Your task to perform on an android device: change the clock display to show seconds Image 0: 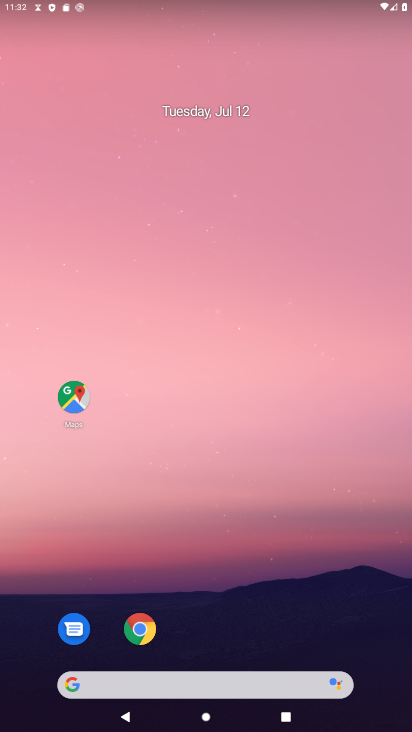
Step 0: drag from (318, 561) to (369, 148)
Your task to perform on an android device: change the clock display to show seconds Image 1: 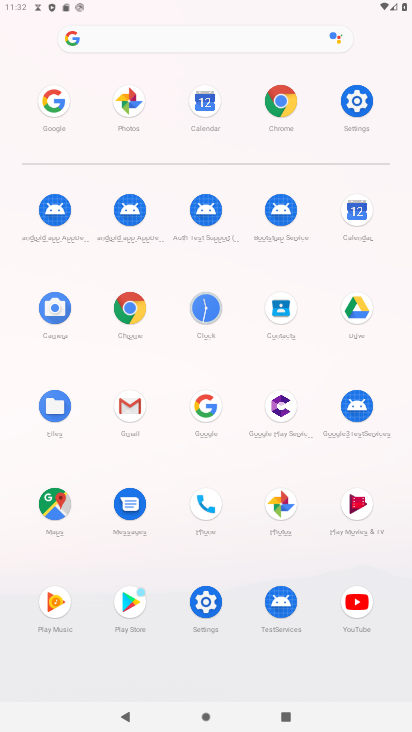
Step 1: click (201, 326)
Your task to perform on an android device: change the clock display to show seconds Image 2: 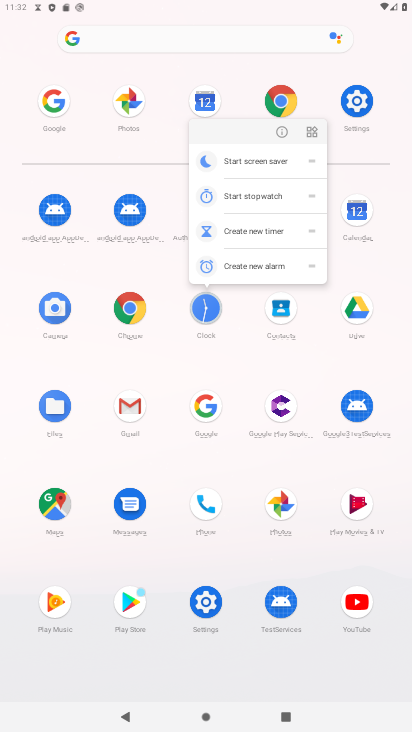
Step 2: click (209, 307)
Your task to perform on an android device: change the clock display to show seconds Image 3: 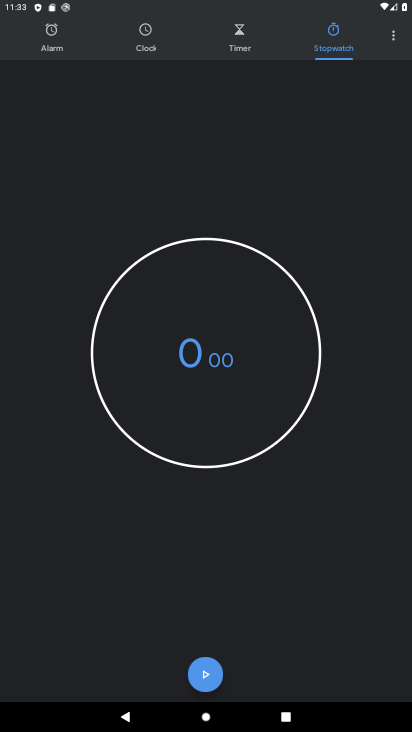
Step 3: click (394, 40)
Your task to perform on an android device: change the clock display to show seconds Image 4: 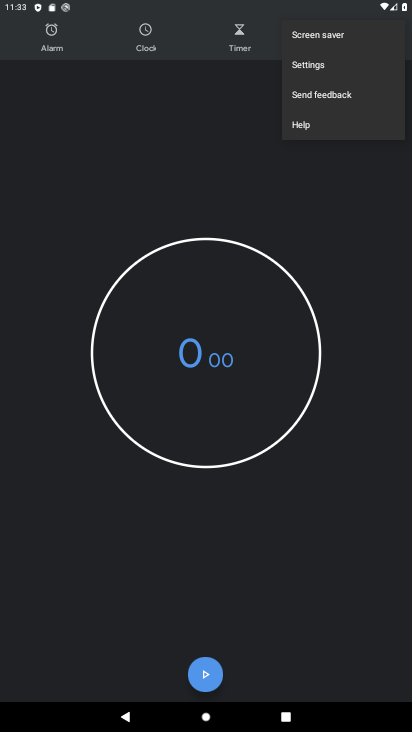
Step 4: click (312, 72)
Your task to perform on an android device: change the clock display to show seconds Image 5: 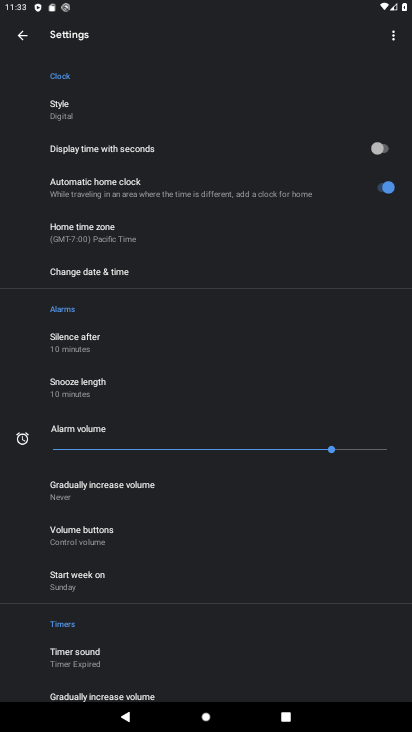
Step 5: click (380, 143)
Your task to perform on an android device: change the clock display to show seconds Image 6: 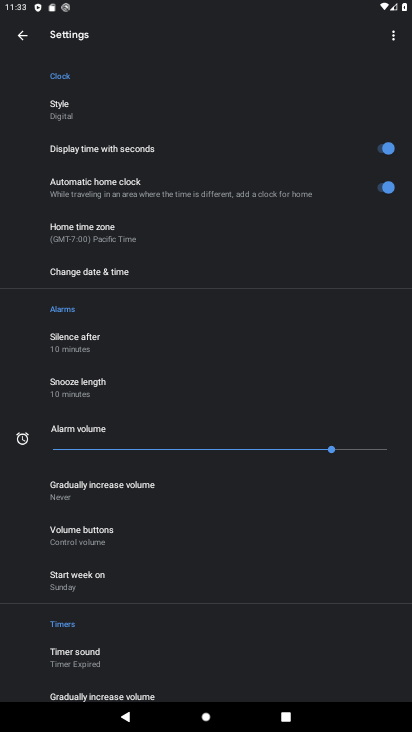
Step 6: task complete